Your task to perform on an android device: Go to sound settings Image 0: 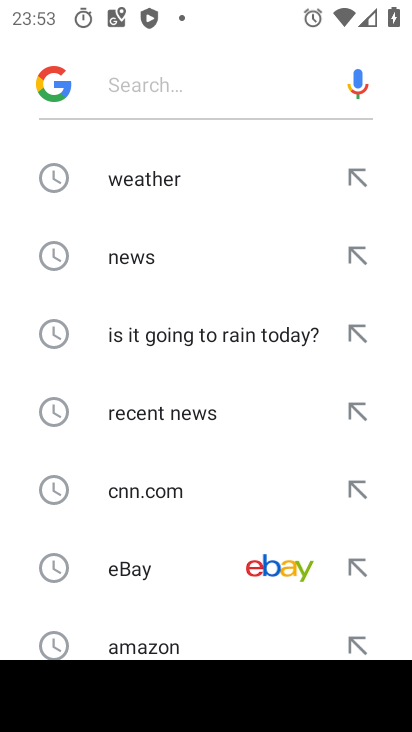
Step 0: press home button
Your task to perform on an android device: Go to sound settings Image 1: 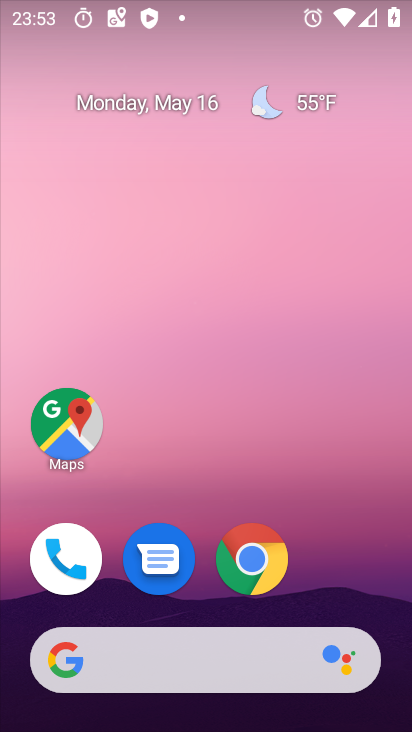
Step 1: drag from (377, 503) to (295, 115)
Your task to perform on an android device: Go to sound settings Image 2: 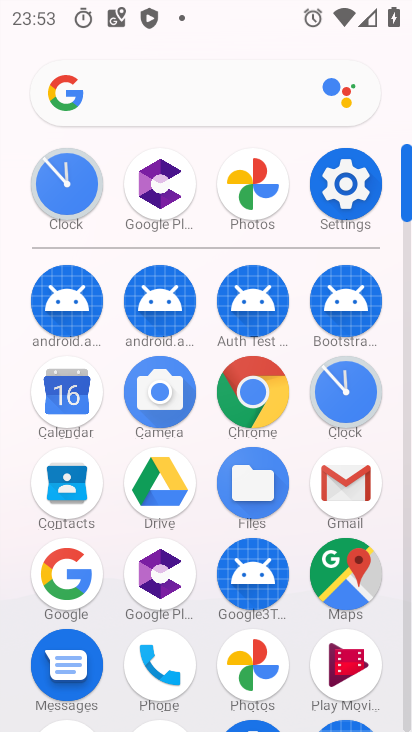
Step 2: click (336, 162)
Your task to perform on an android device: Go to sound settings Image 3: 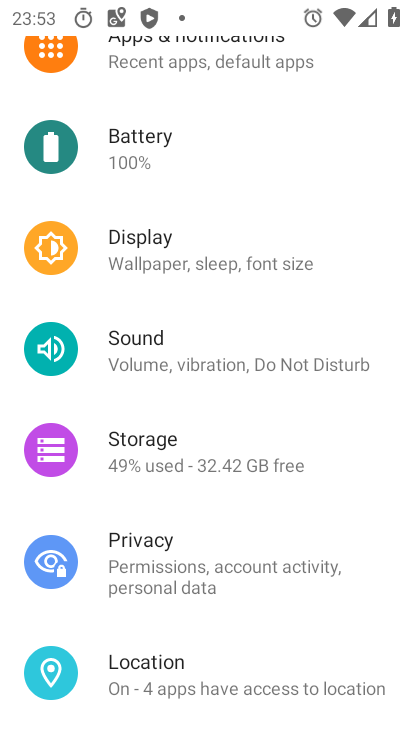
Step 3: click (180, 366)
Your task to perform on an android device: Go to sound settings Image 4: 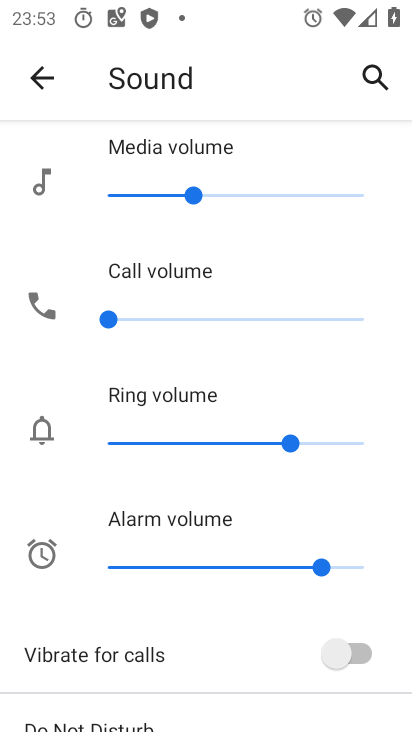
Step 4: task complete